Your task to perform on an android device: Go to sound settings Image 0: 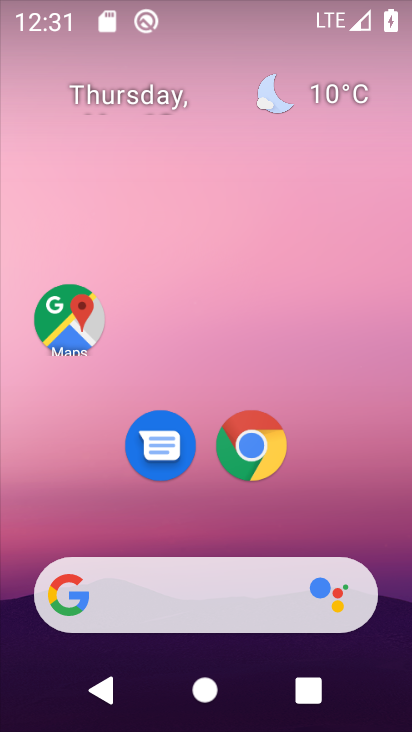
Step 0: drag from (164, 525) to (248, 16)
Your task to perform on an android device: Go to sound settings Image 1: 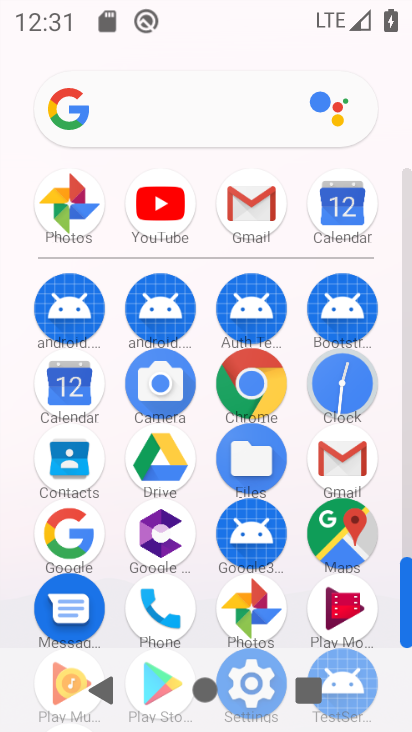
Step 1: drag from (245, 612) to (301, 185)
Your task to perform on an android device: Go to sound settings Image 2: 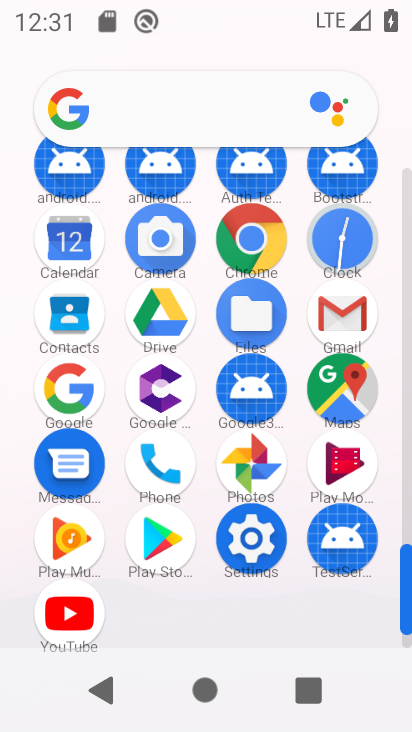
Step 2: click (246, 532)
Your task to perform on an android device: Go to sound settings Image 3: 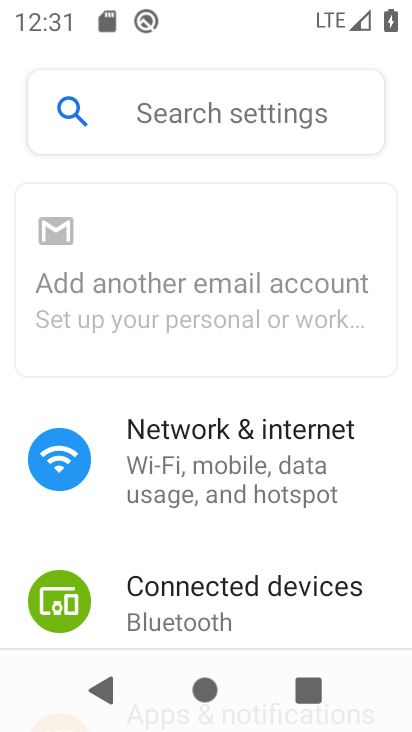
Step 3: drag from (219, 574) to (214, 42)
Your task to perform on an android device: Go to sound settings Image 4: 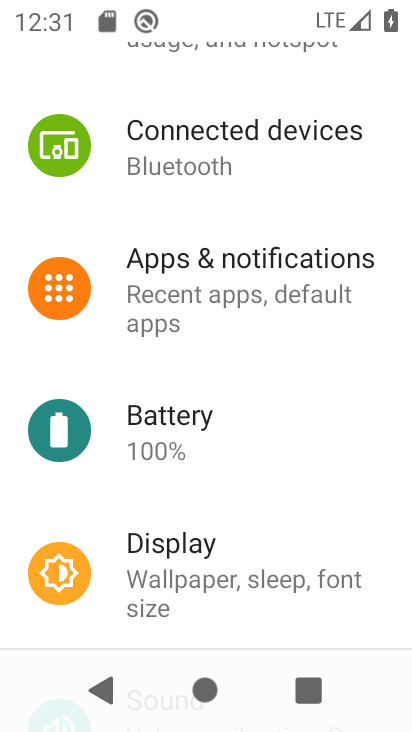
Step 4: drag from (165, 533) to (255, 70)
Your task to perform on an android device: Go to sound settings Image 5: 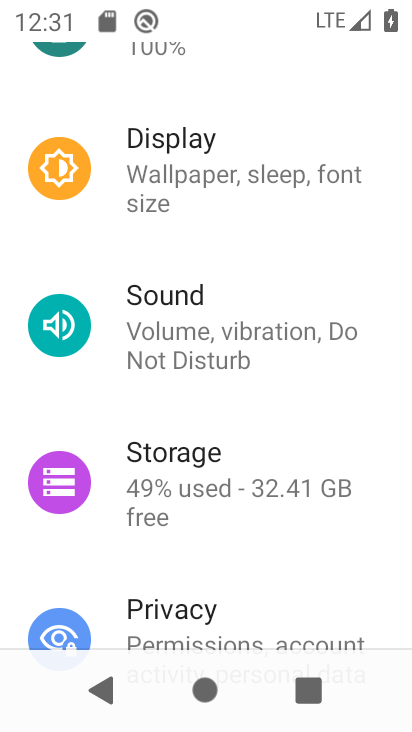
Step 5: click (203, 336)
Your task to perform on an android device: Go to sound settings Image 6: 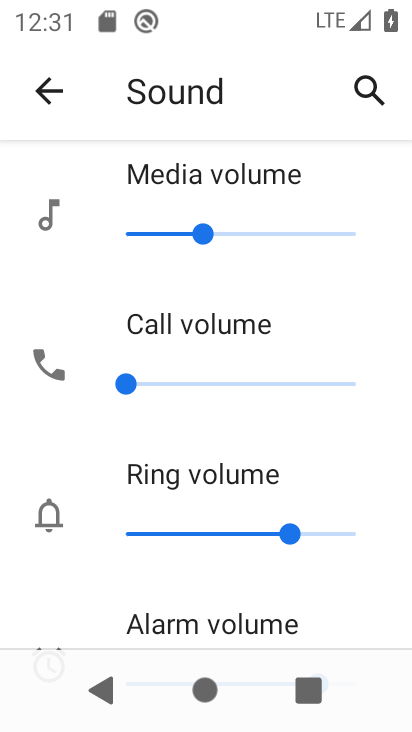
Step 6: task complete